Your task to perform on an android device: turn on sleep mode Image 0: 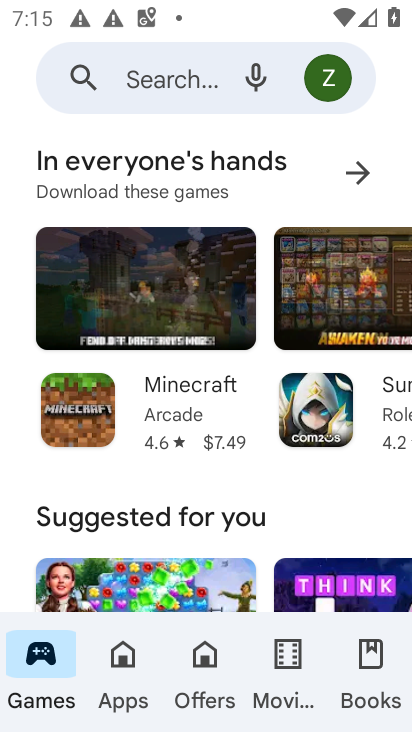
Step 0: press home button
Your task to perform on an android device: turn on sleep mode Image 1: 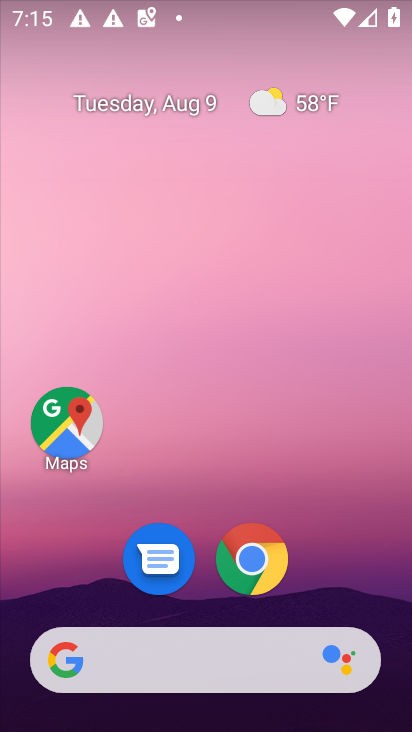
Step 1: drag from (198, 547) to (205, 61)
Your task to perform on an android device: turn on sleep mode Image 2: 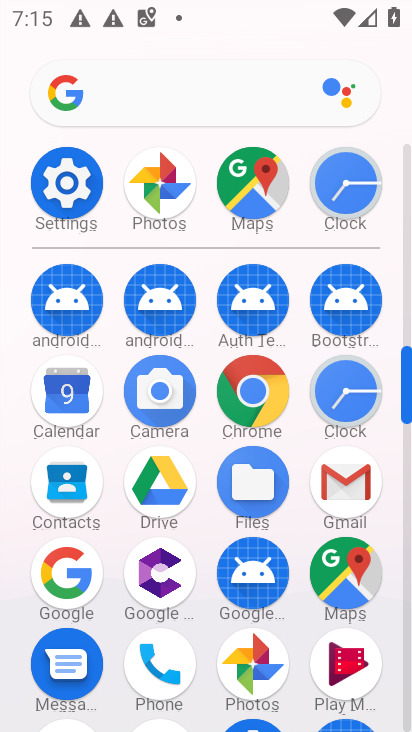
Step 2: click (67, 175)
Your task to perform on an android device: turn on sleep mode Image 3: 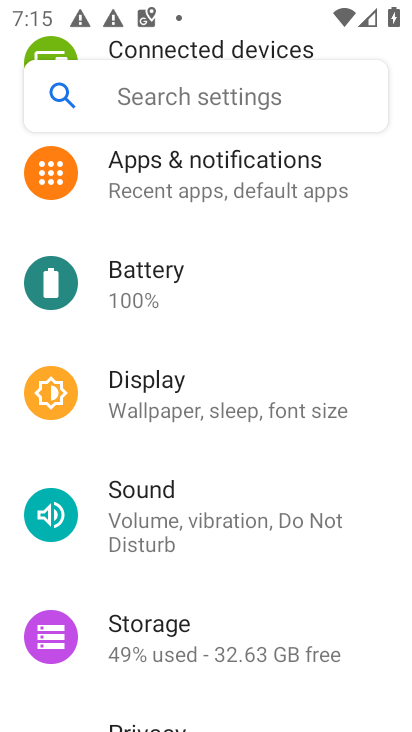
Step 3: task complete